Your task to perform on an android device: Go to Android settings Image 0: 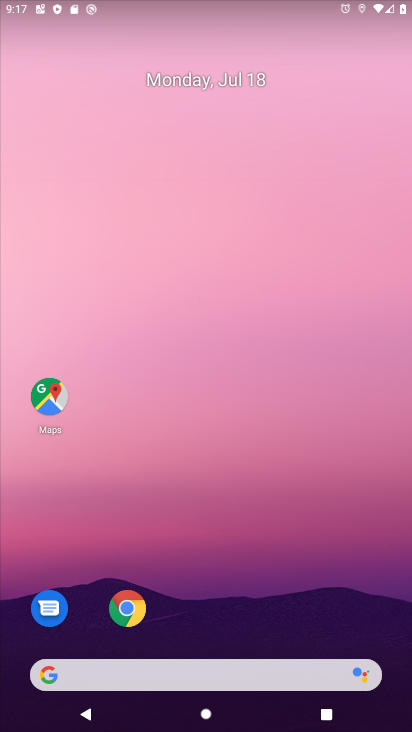
Step 0: drag from (147, 253) to (196, 44)
Your task to perform on an android device: Go to Android settings Image 1: 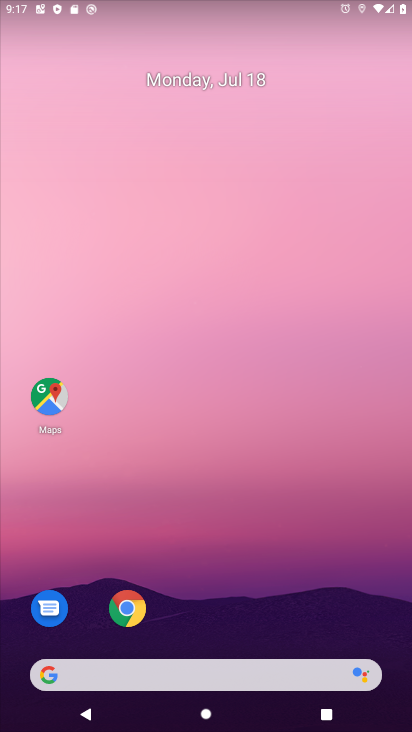
Step 1: drag from (17, 693) to (283, 22)
Your task to perform on an android device: Go to Android settings Image 2: 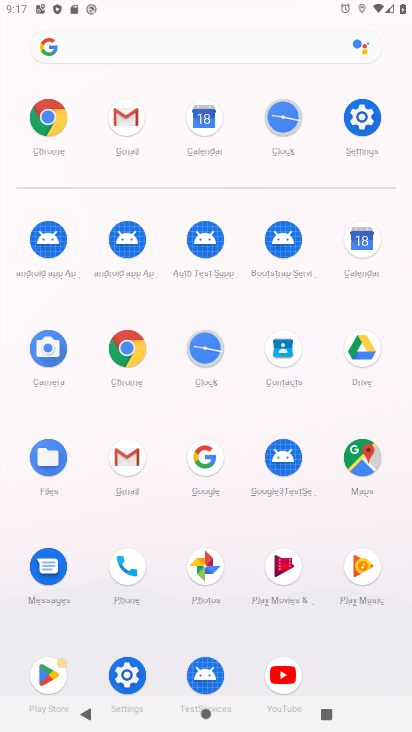
Step 2: click (126, 668)
Your task to perform on an android device: Go to Android settings Image 3: 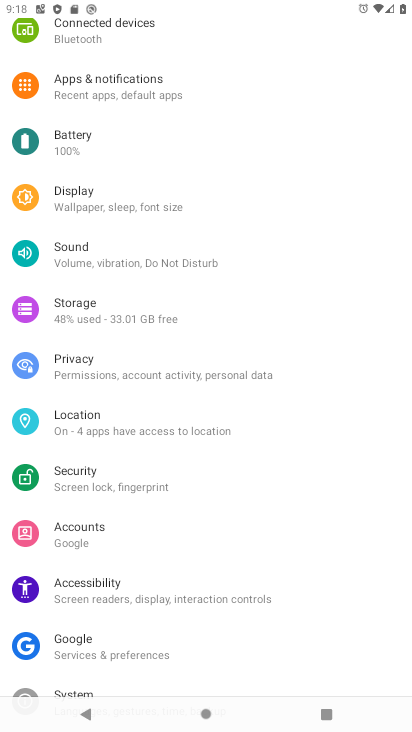
Step 3: drag from (248, 641) to (293, 230)
Your task to perform on an android device: Go to Android settings Image 4: 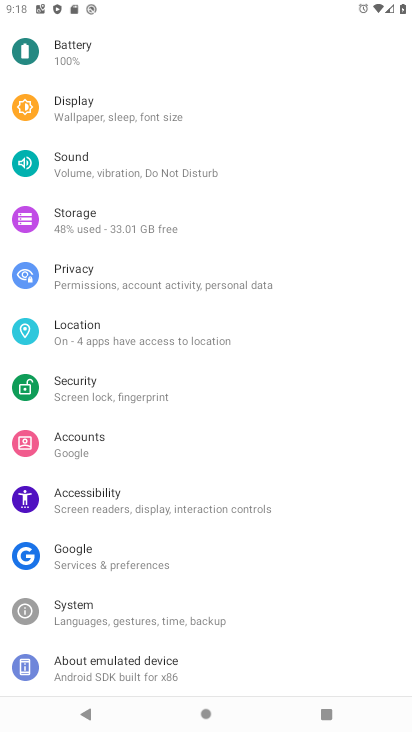
Step 4: click (138, 660)
Your task to perform on an android device: Go to Android settings Image 5: 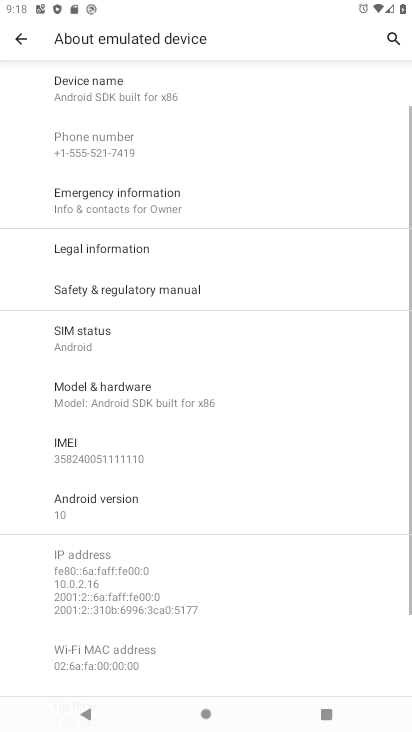
Step 5: click (101, 511)
Your task to perform on an android device: Go to Android settings Image 6: 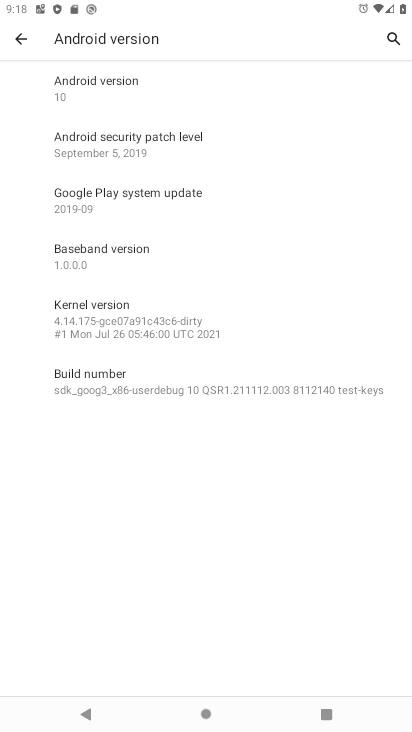
Step 6: task complete